Your task to perform on an android device: Open my contact list Image 0: 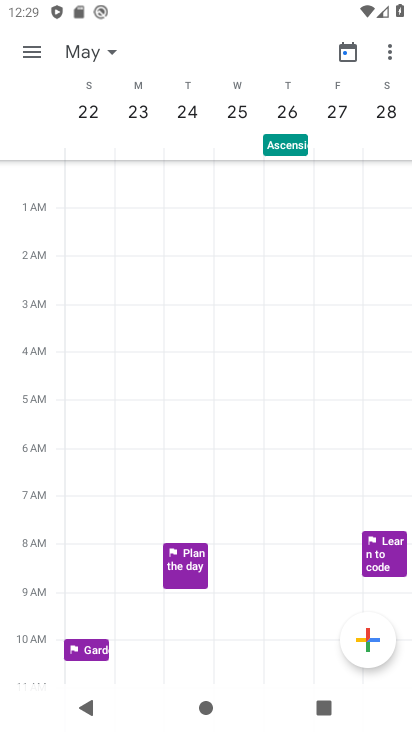
Step 0: press home button
Your task to perform on an android device: Open my contact list Image 1: 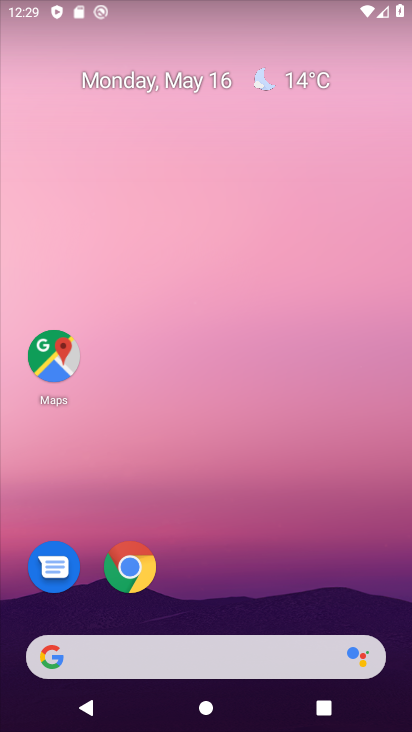
Step 1: drag from (271, 512) to (144, 2)
Your task to perform on an android device: Open my contact list Image 2: 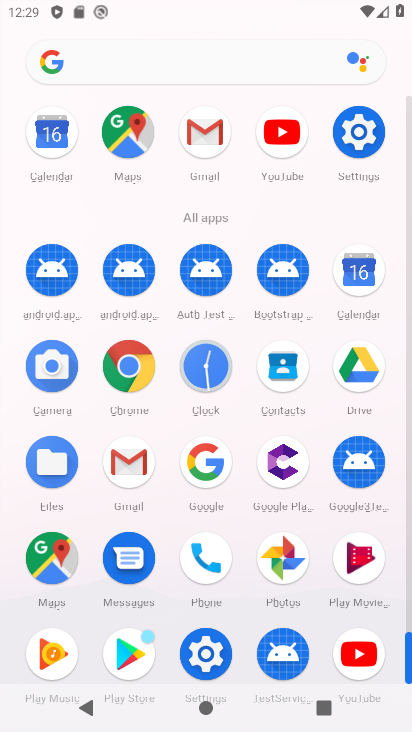
Step 2: click (283, 380)
Your task to perform on an android device: Open my contact list Image 3: 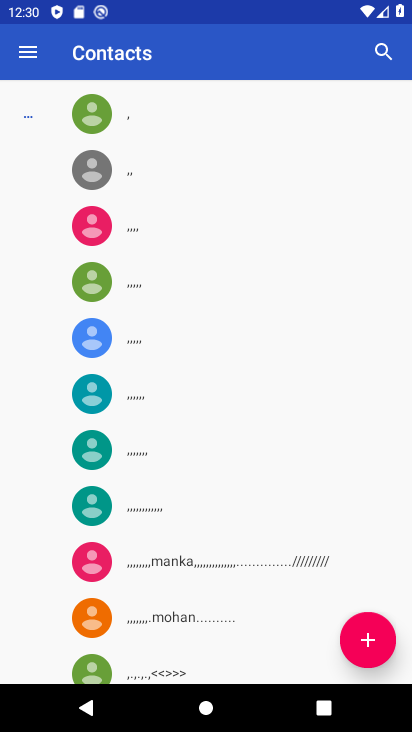
Step 3: task complete